Your task to perform on an android device: open app "LinkedIn" (install if not already installed) Image 0: 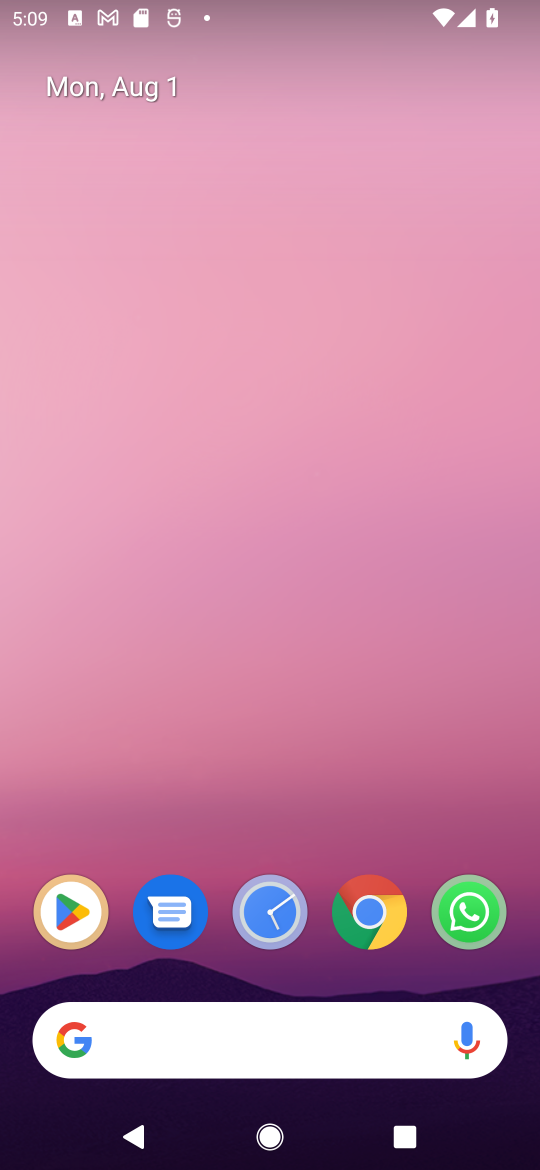
Step 0: click (46, 915)
Your task to perform on an android device: open app "LinkedIn" (install if not already installed) Image 1: 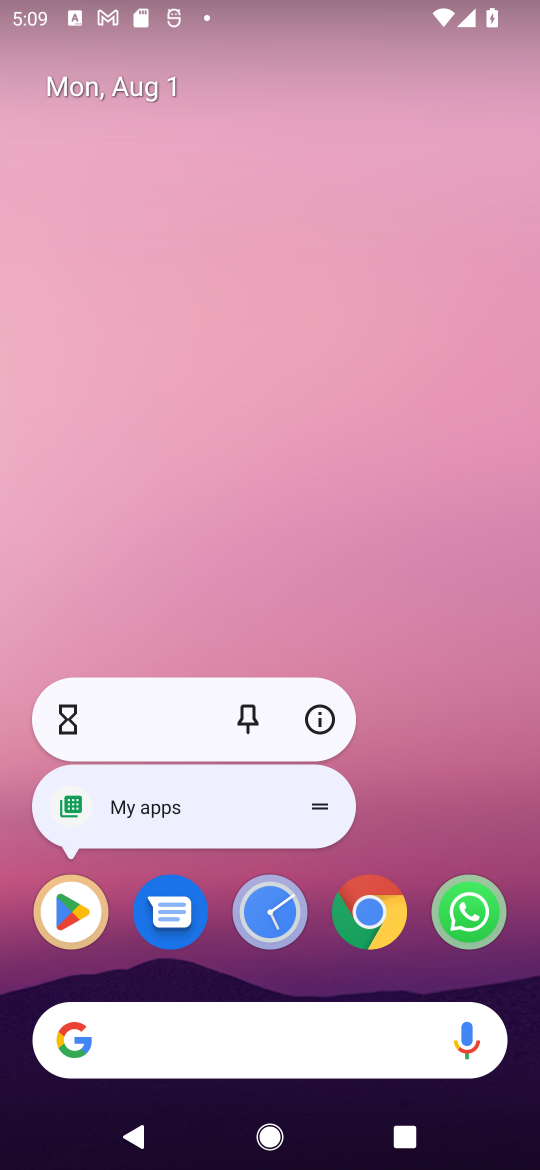
Step 1: click (50, 911)
Your task to perform on an android device: open app "LinkedIn" (install if not already installed) Image 2: 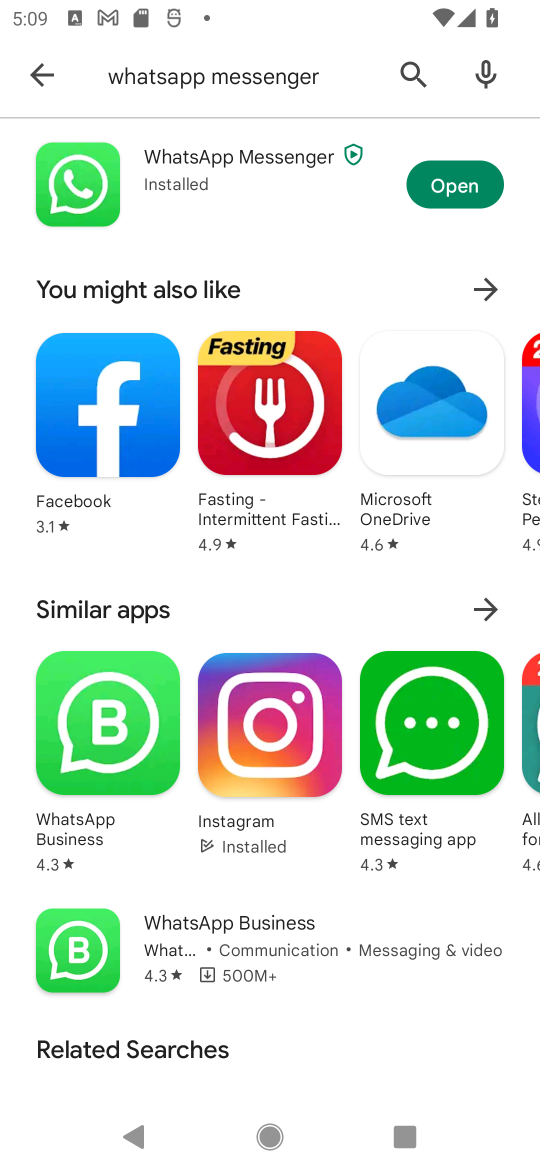
Step 2: click (419, 65)
Your task to perform on an android device: open app "LinkedIn" (install if not already installed) Image 3: 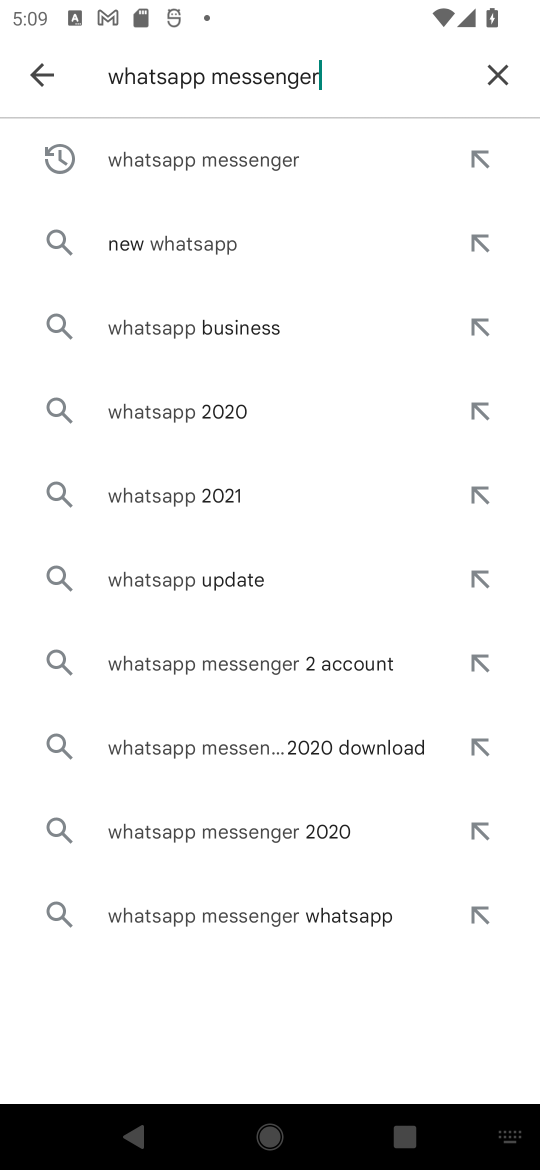
Step 3: click (496, 76)
Your task to perform on an android device: open app "LinkedIn" (install if not already installed) Image 4: 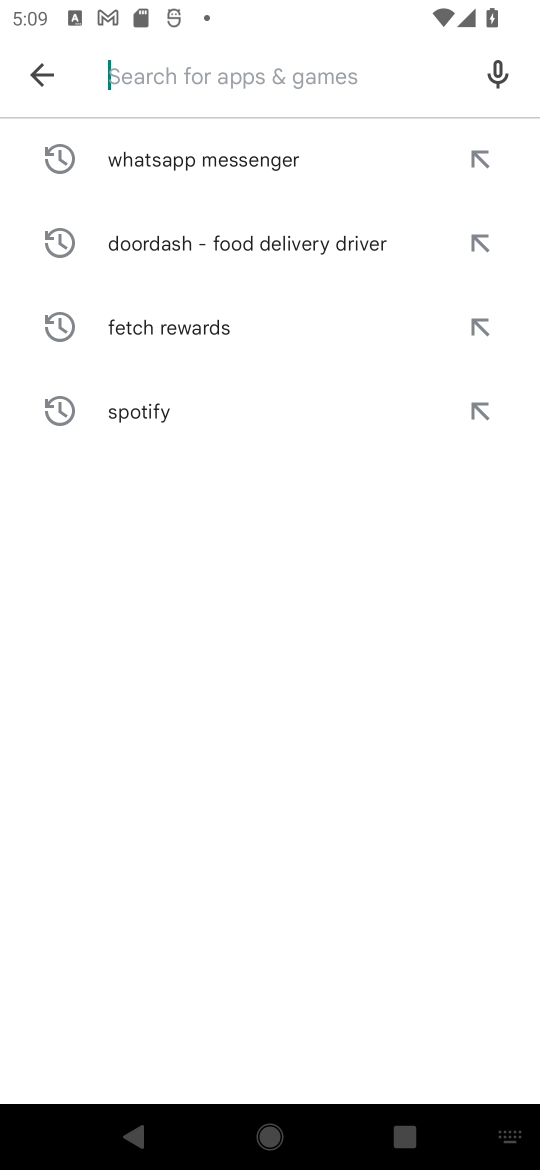
Step 4: type "LinkedIn"
Your task to perform on an android device: open app "LinkedIn" (install if not already installed) Image 5: 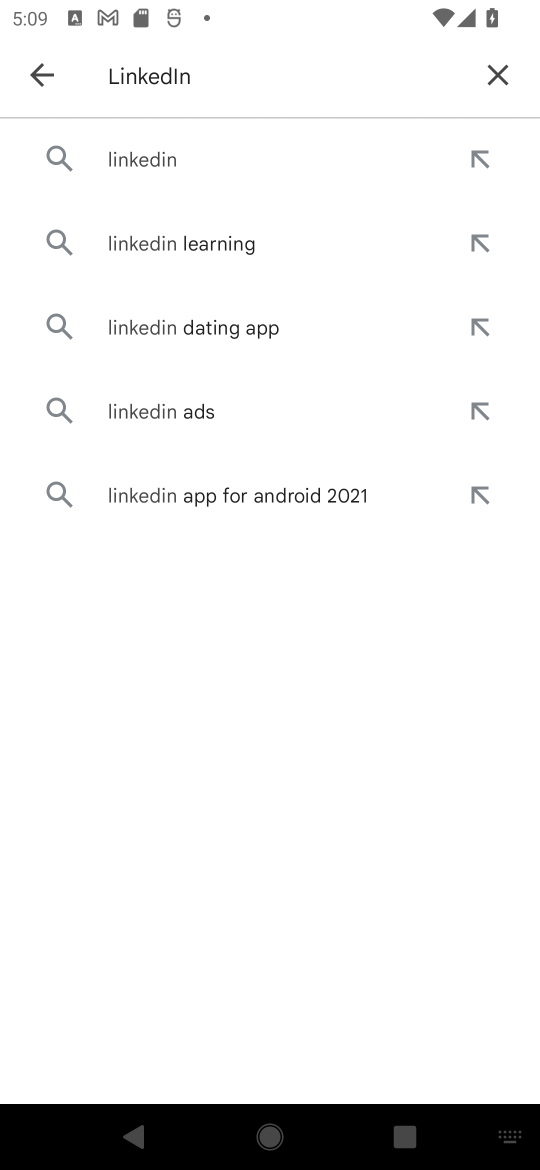
Step 5: click (136, 167)
Your task to perform on an android device: open app "LinkedIn" (install if not already installed) Image 6: 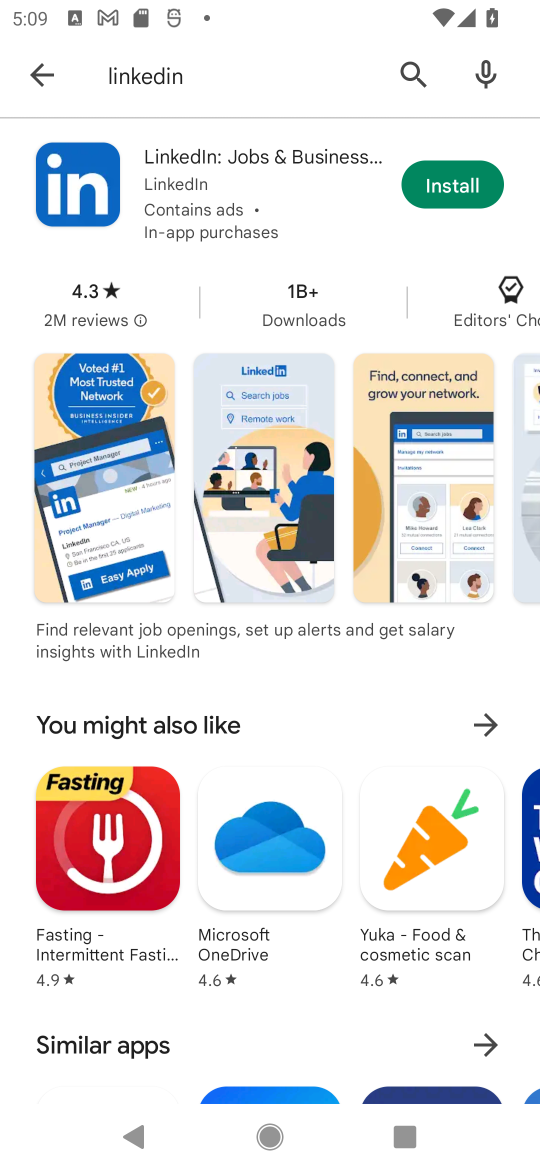
Step 6: click (442, 184)
Your task to perform on an android device: open app "LinkedIn" (install if not already installed) Image 7: 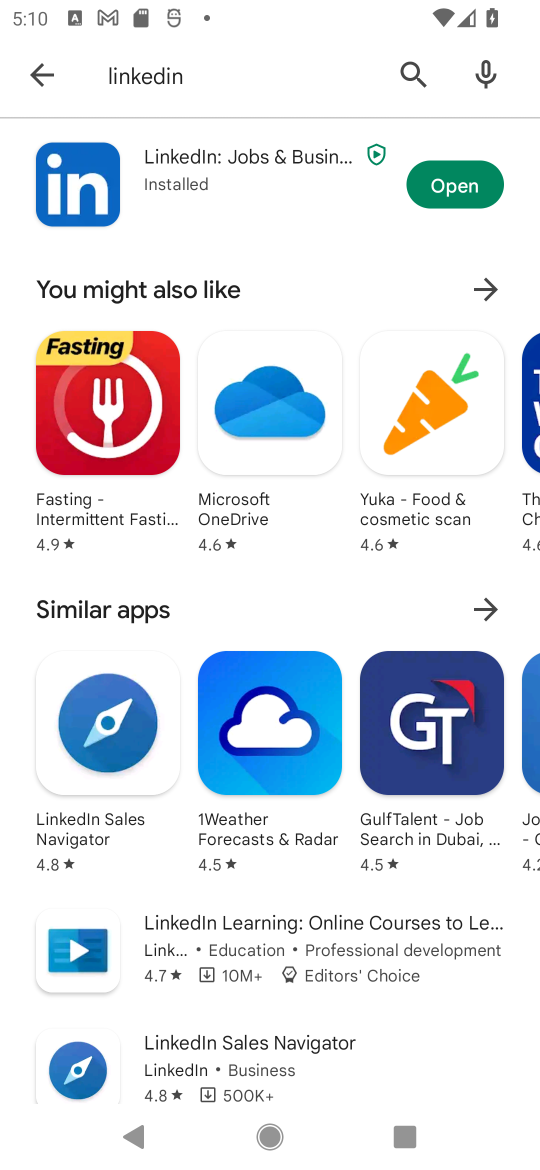
Step 7: click (439, 182)
Your task to perform on an android device: open app "LinkedIn" (install if not already installed) Image 8: 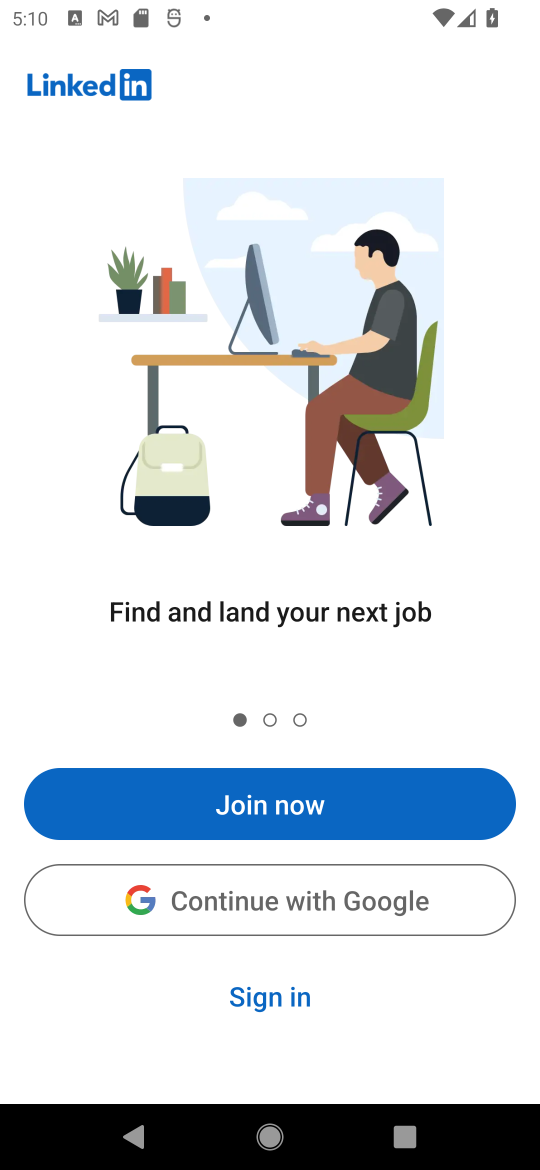
Step 8: task complete